Your task to perform on an android device: Open Google Maps and go to "Timeline" Image 0: 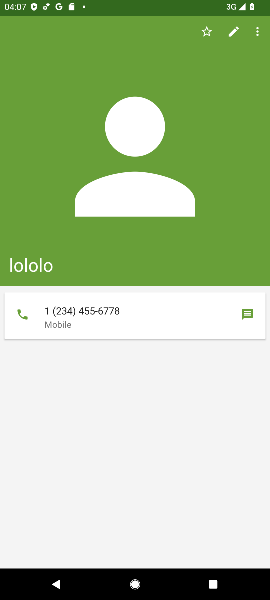
Step 0: press home button
Your task to perform on an android device: Open Google Maps and go to "Timeline" Image 1: 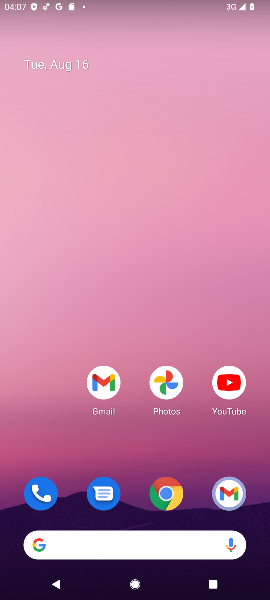
Step 1: drag from (66, 472) to (89, 76)
Your task to perform on an android device: Open Google Maps and go to "Timeline" Image 2: 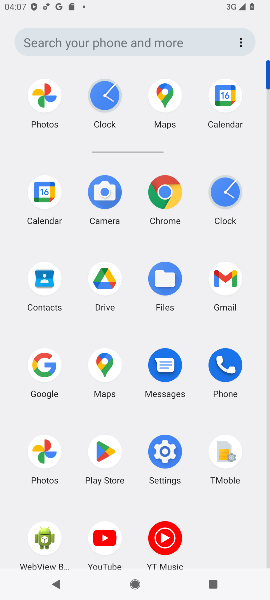
Step 2: click (104, 368)
Your task to perform on an android device: Open Google Maps and go to "Timeline" Image 3: 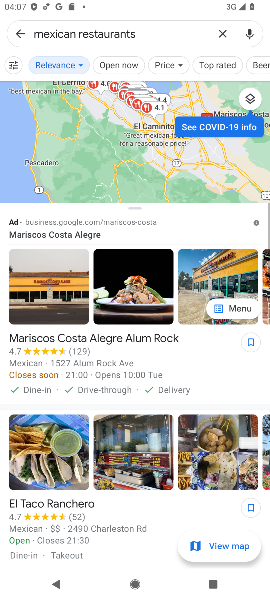
Step 3: press back button
Your task to perform on an android device: Open Google Maps and go to "Timeline" Image 4: 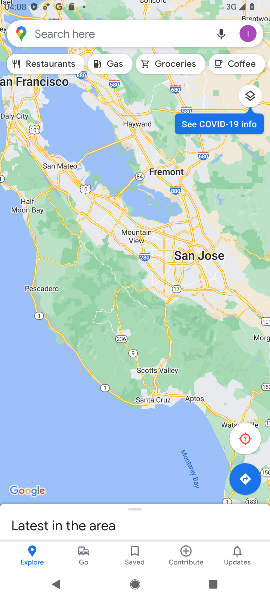
Step 4: click (252, 32)
Your task to perform on an android device: Open Google Maps and go to "Timeline" Image 5: 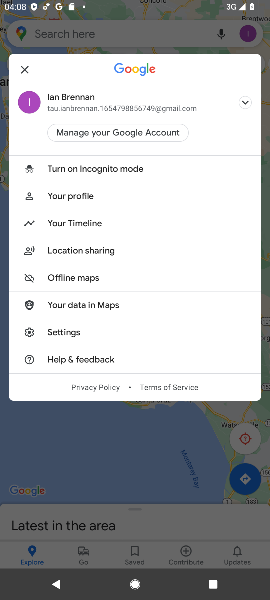
Step 5: click (84, 225)
Your task to perform on an android device: Open Google Maps and go to "Timeline" Image 6: 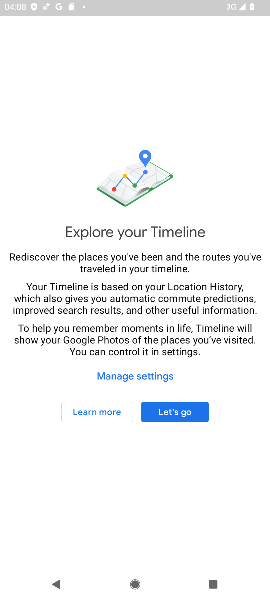
Step 6: task complete